Your task to perform on an android device: toggle notifications settings in the gmail app Image 0: 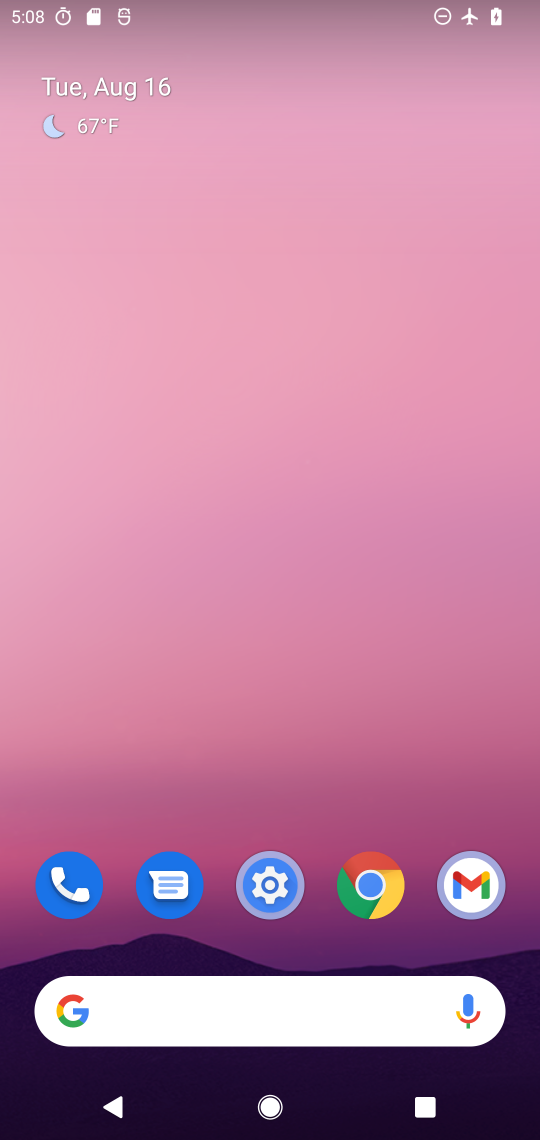
Step 0: drag from (102, 932) to (137, 507)
Your task to perform on an android device: toggle notifications settings in the gmail app Image 1: 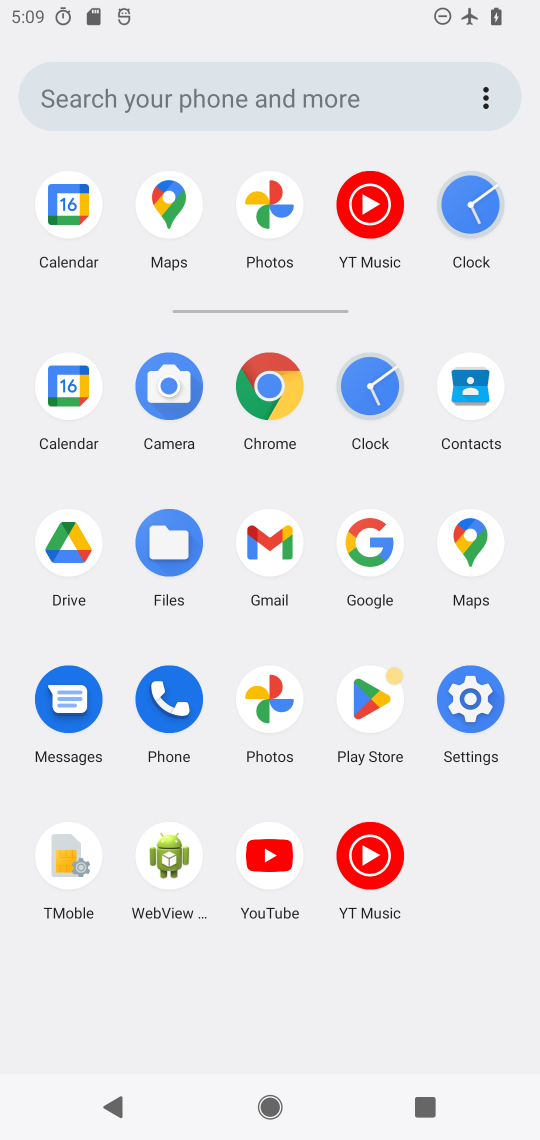
Step 1: click (273, 554)
Your task to perform on an android device: toggle notifications settings in the gmail app Image 2: 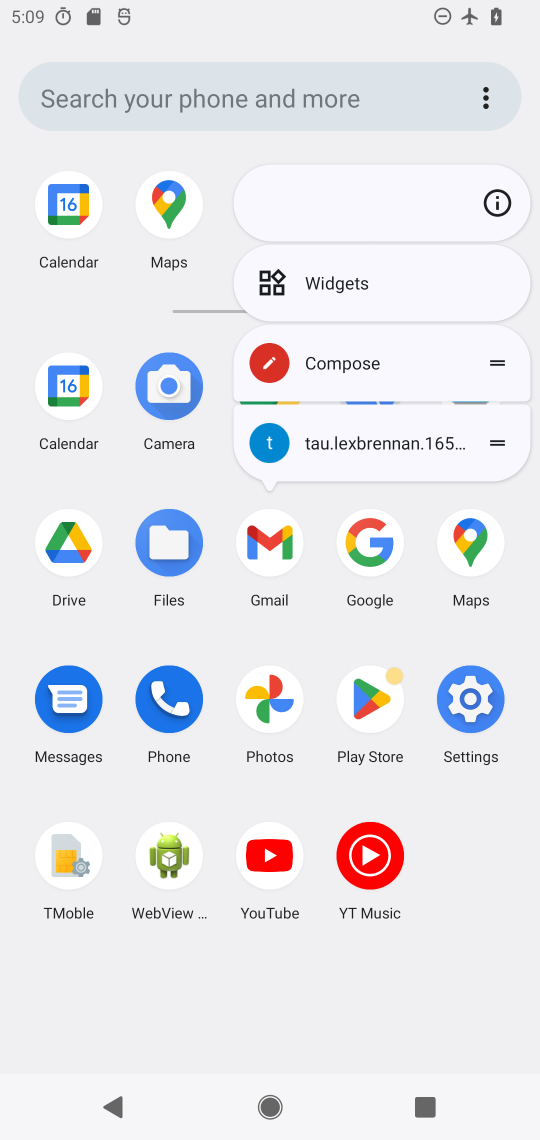
Step 2: click (258, 534)
Your task to perform on an android device: toggle notifications settings in the gmail app Image 3: 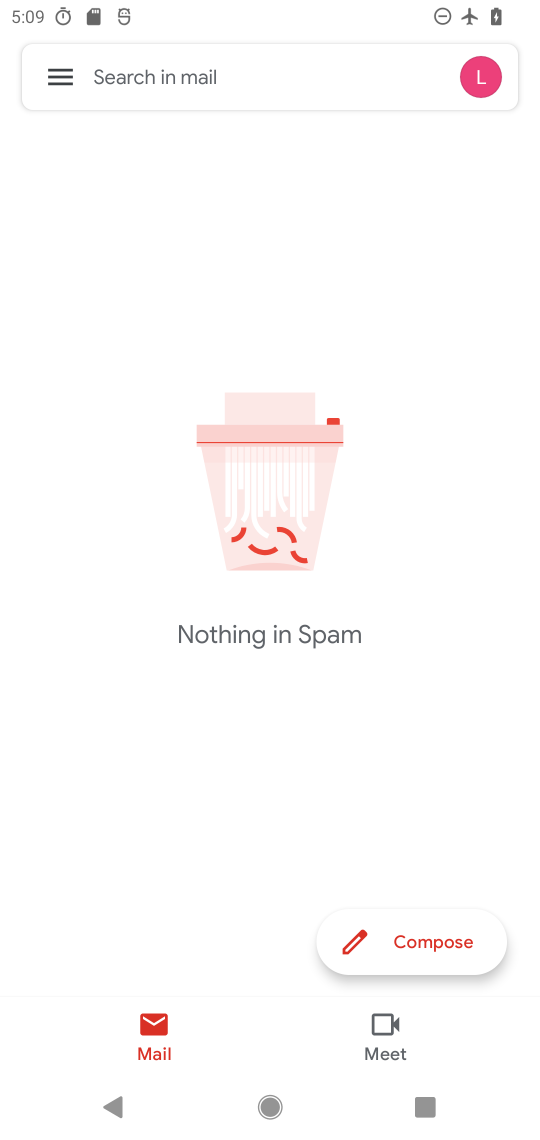
Step 3: click (60, 70)
Your task to perform on an android device: toggle notifications settings in the gmail app Image 4: 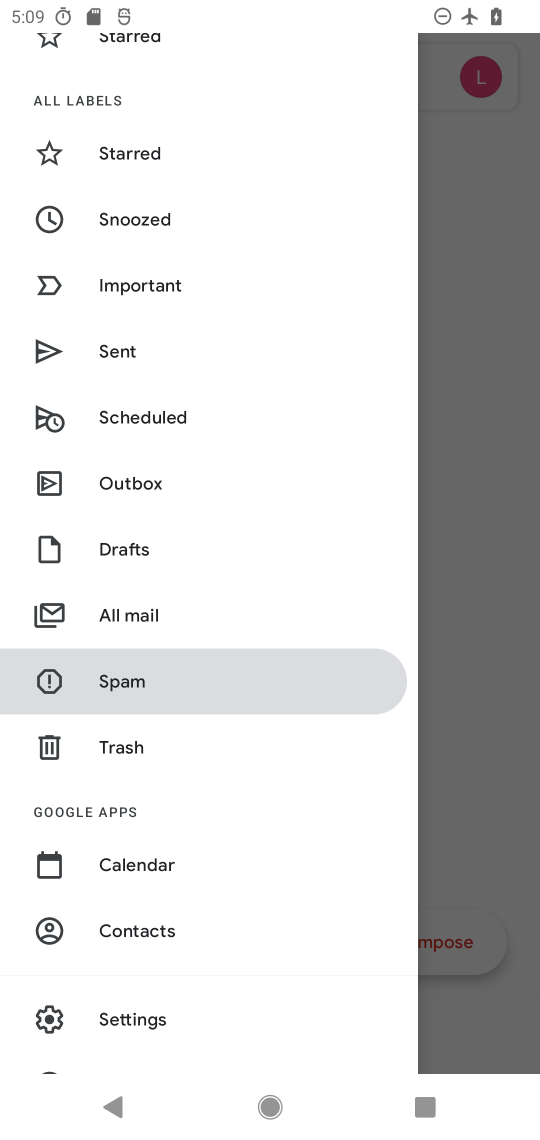
Step 4: click (124, 1003)
Your task to perform on an android device: toggle notifications settings in the gmail app Image 5: 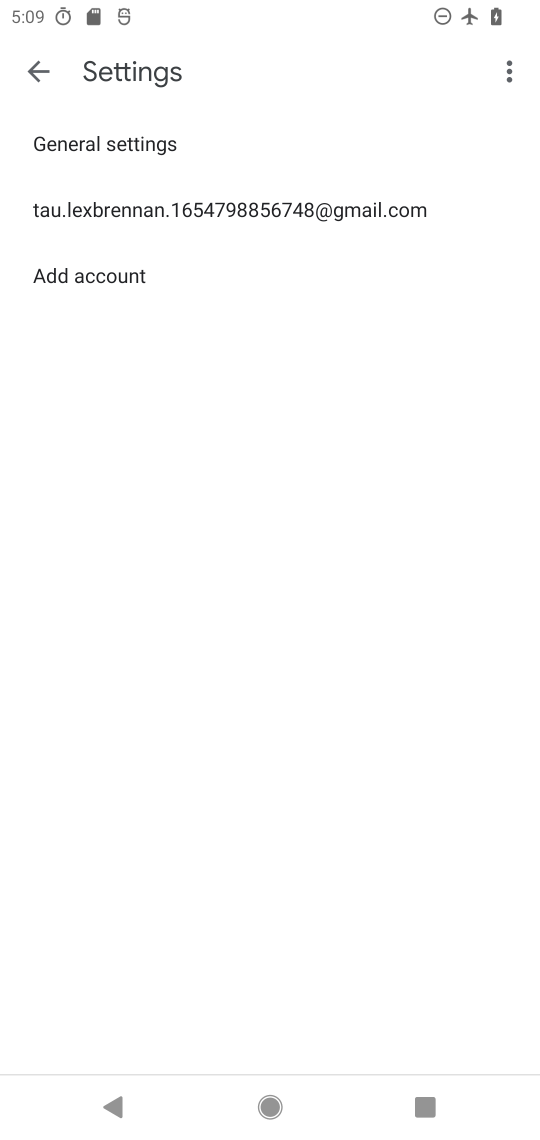
Step 5: click (155, 212)
Your task to perform on an android device: toggle notifications settings in the gmail app Image 6: 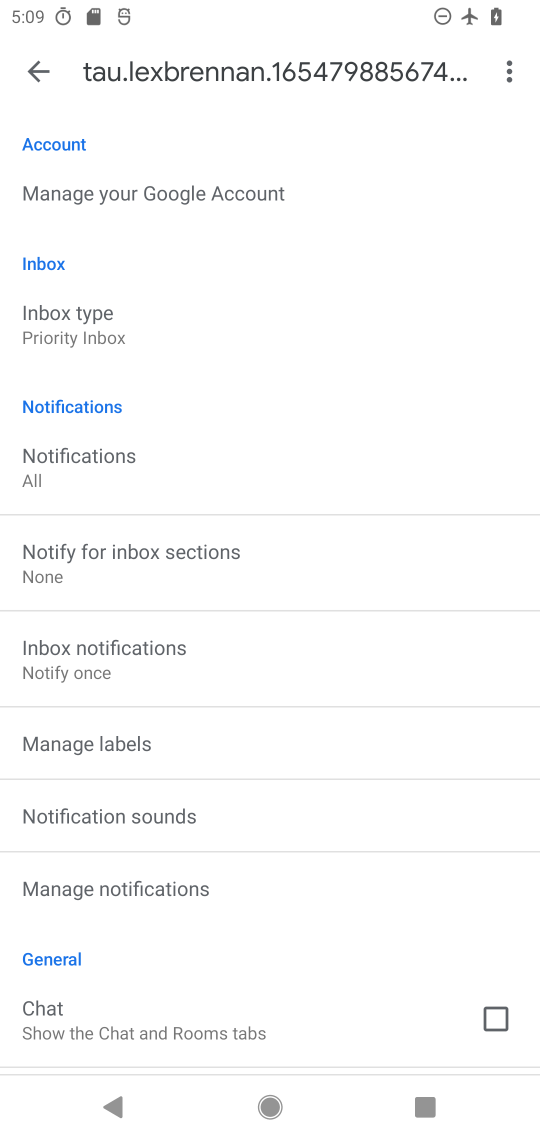
Step 6: click (123, 490)
Your task to perform on an android device: toggle notifications settings in the gmail app Image 7: 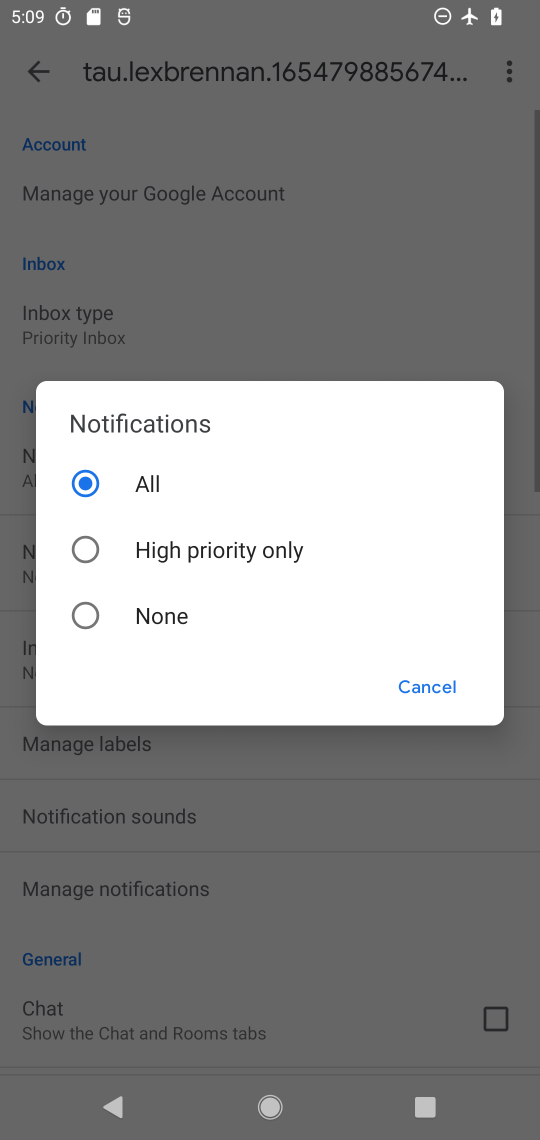
Step 7: click (181, 604)
Your task to perform on an android device: toggle notifications settings in the gmail app Image 8: 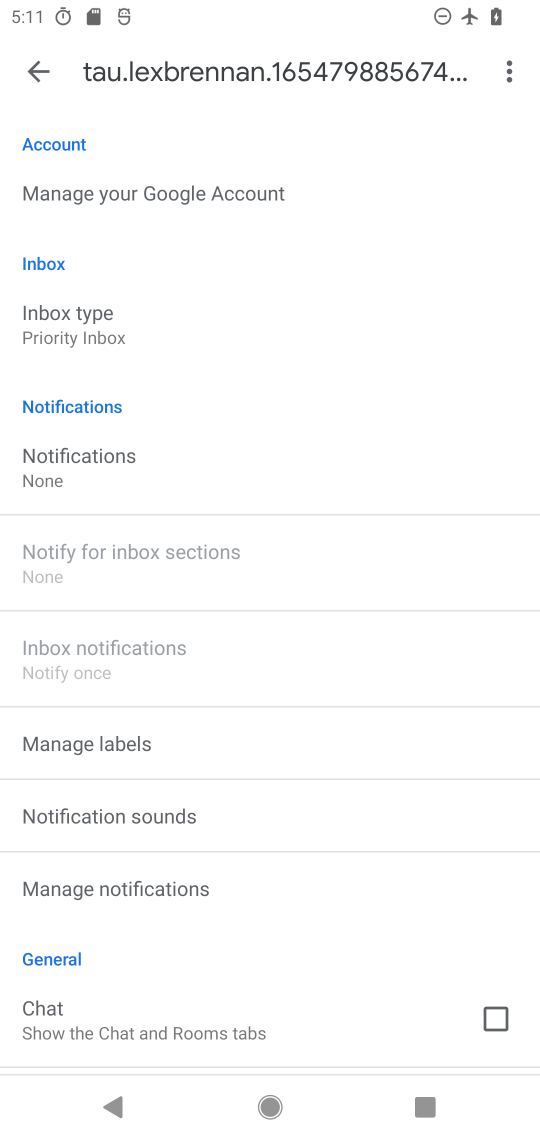
Step 8: task complete